Your task to perform on an android device: delete the emails in spam in the gmail app Image 0: 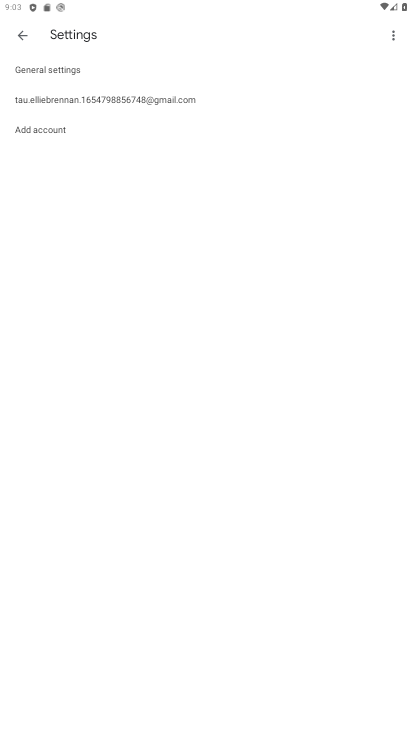
Step 0: drag from (334, 377) to (341, 139)
Your task to perform on an android device: delete the emails in spam in the gmail app Image 1: 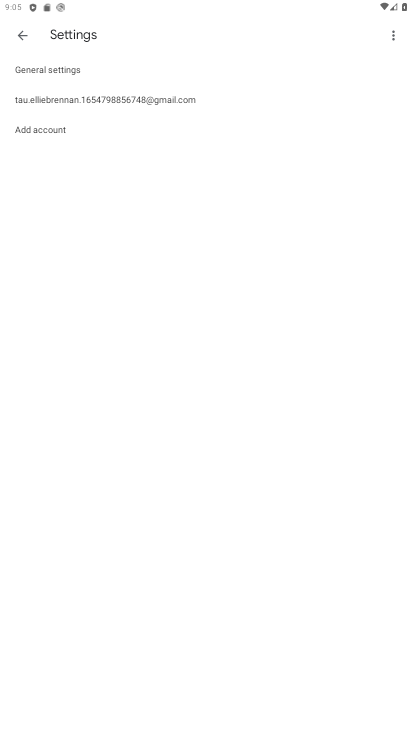
Step 1: drag from (339, 367) to (366, 177)
Your task to perform on an android device: delete the emails in spam in the gmail app Image 2: 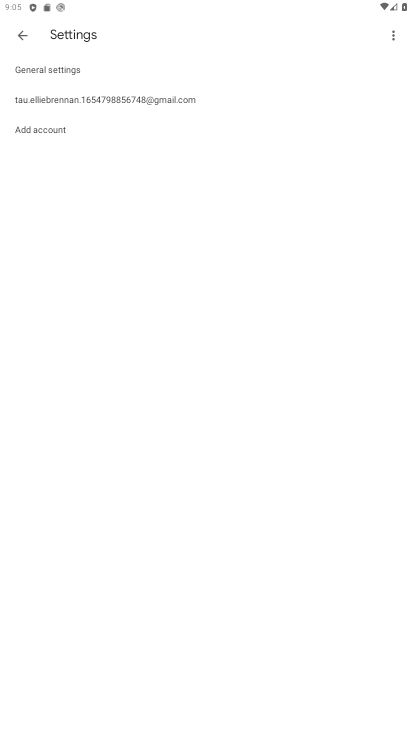
Step 2: click (77, 113)
Your task to perform on an android device: delete the emails in spam in the gmail app Image 3: 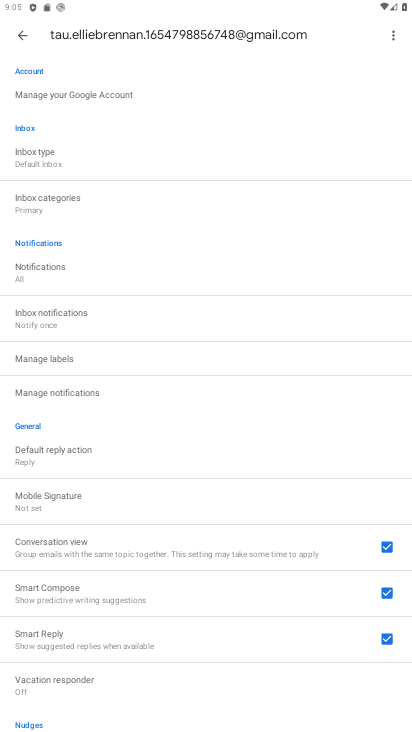
Step 3: click (13, 47)
Your task to perform on an android device: delete the emails in spam in the gmail app Image 4: 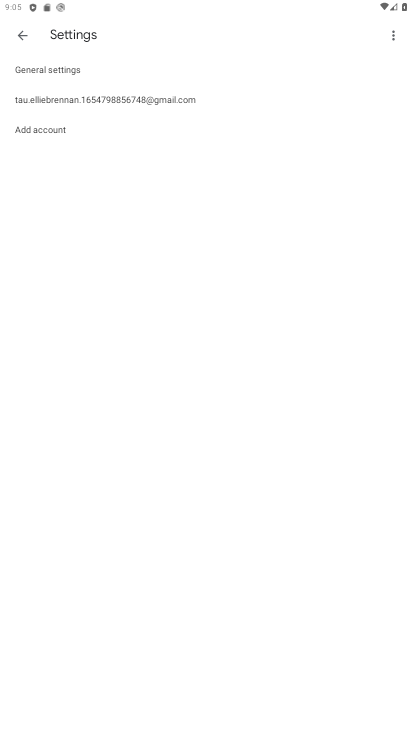
Step 4: drag from (133, 378) to (116, 165)
Your task to perform on an android device: delete the emails in spam in the gmail app Image 5: 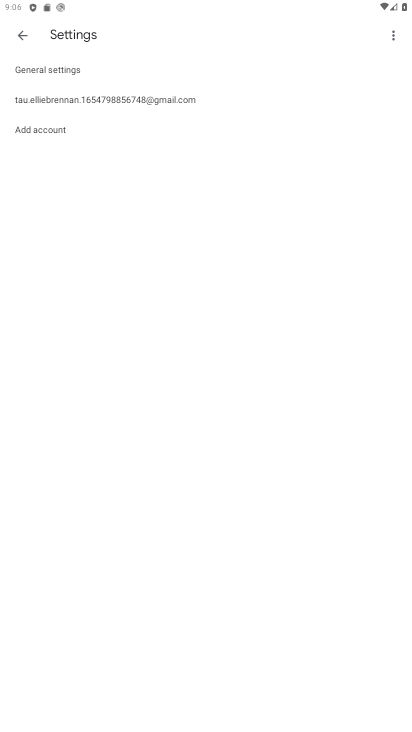
Step 5: drag from (12, 338) to (212, 124)
Your task to perform on an android device: delete the emails in spam in the gmail app Image 6: 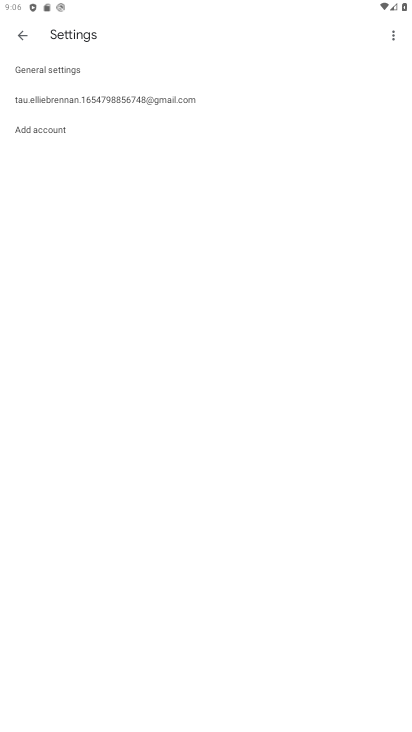
Step 6: drag from (302, 375) to (288, 197)
Your task to perform on an android device: delete the emails in spam in the gmail app Image 7: 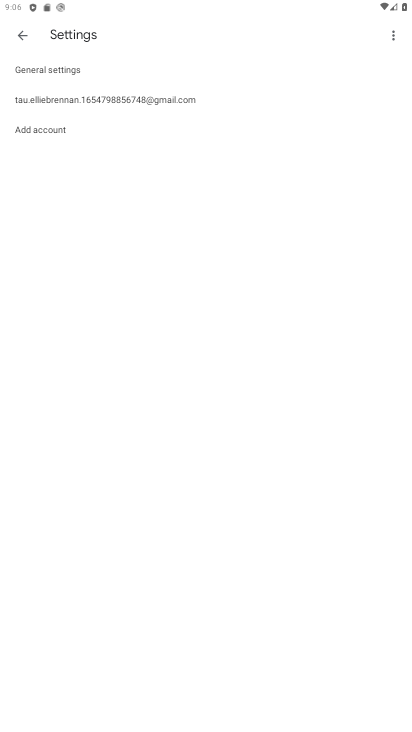
Step 7: press home button
Your task to perform on an android device: delete the emails in spam in the gmail app Image 8: 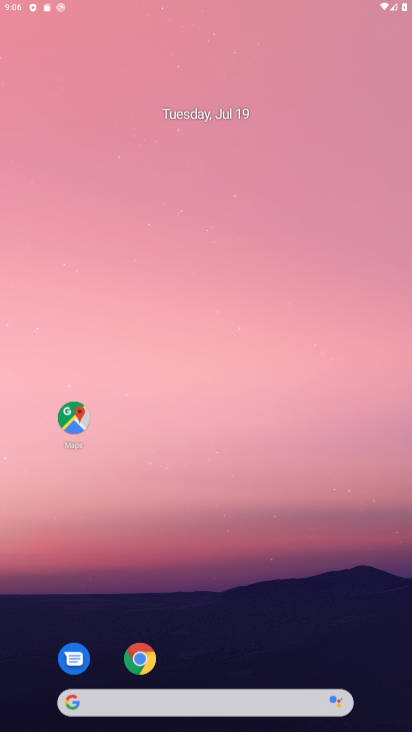
Step 8: drag from (242, 512) to (301, 134)
Your task to perform on an android device: delete the emails in spam in the gmail app Image 9: 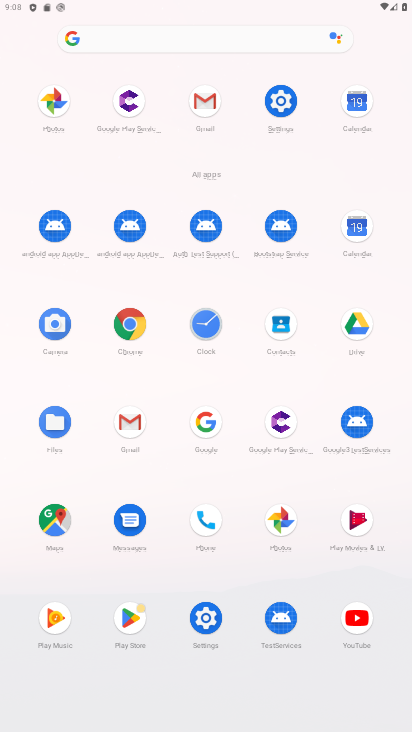
Step 9: drag from (271, 426) to (371, 313)
Your task to perform on an android device: delete the emails in spam in the gmail app Image 10: 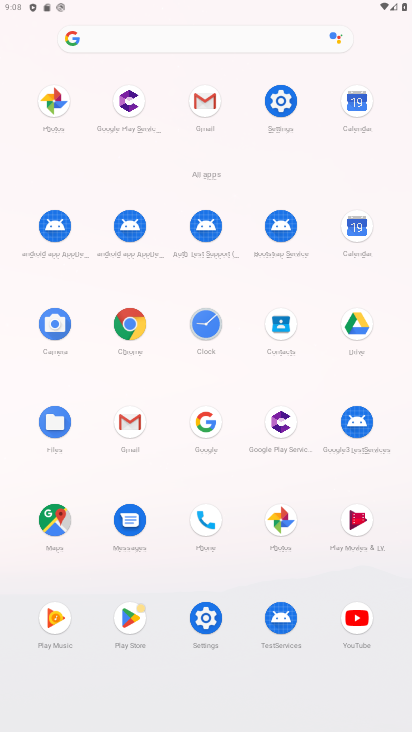
Step 10: click (131, 422)
Your task to perform on an android device: delete the emails in spam in the gmail app Image 11: 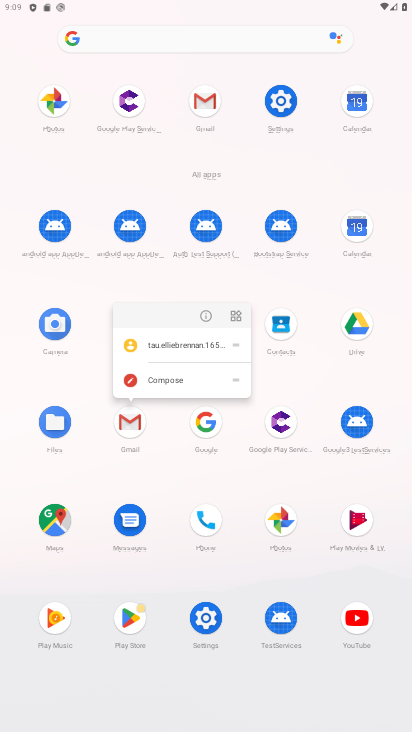
Step 11: click (204, 327)
Your task to perform on an android device: delete the emails in spam in the gmail app Image 12: 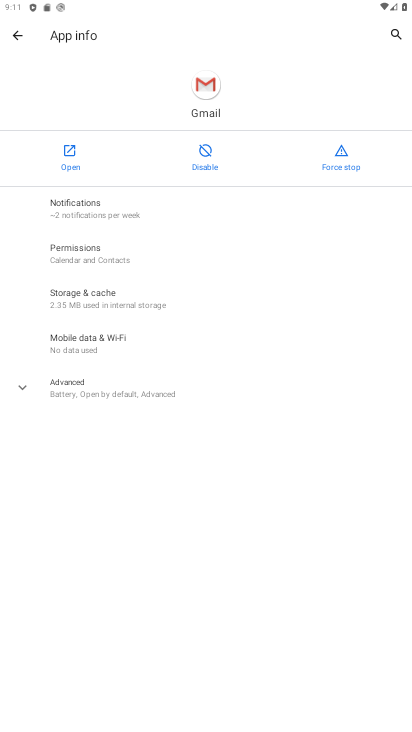
Step 12: click (66, 162)
Your task to perform on an android device: delete the emails in spam in the gmail app Image 13: 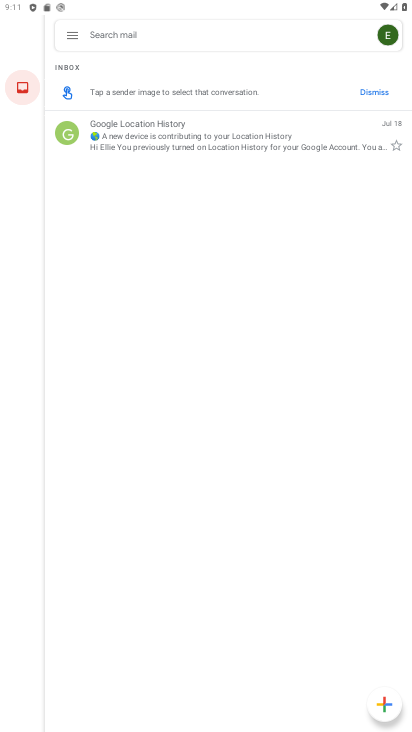
Step 13: drag from (290, 543) to (272, 348)
Your task to perform on an android device: delete the emails in spam in the gmail app Image 14: 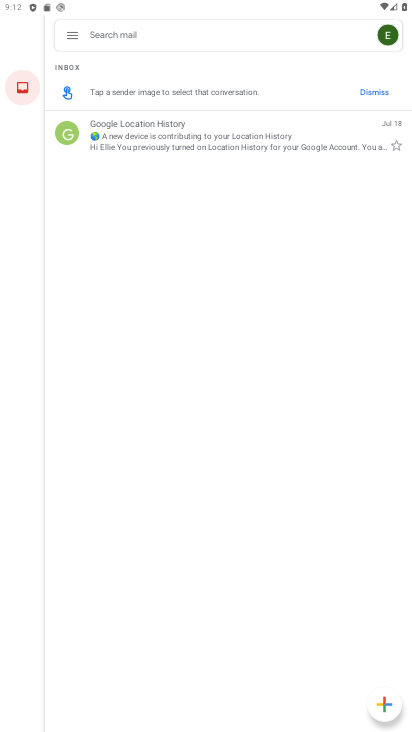
Step 14: click (279, 413)
Your task to perform on an android device: delete the emails in spam in the gmail app Image 15: 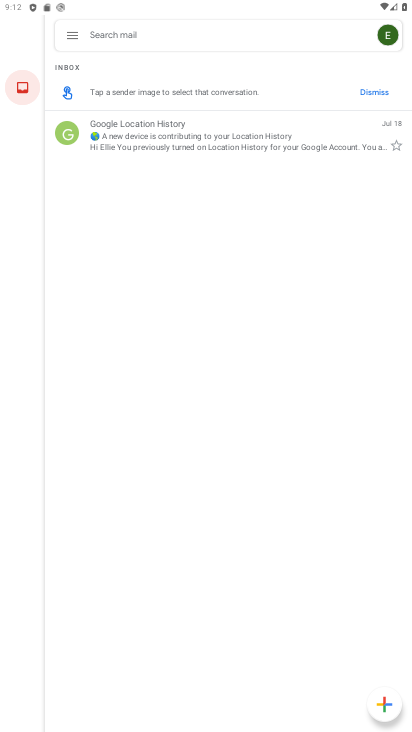
Step 15: press home button
Your task to perform on an android device: delete the emails in spam in the gmail app Image 16: 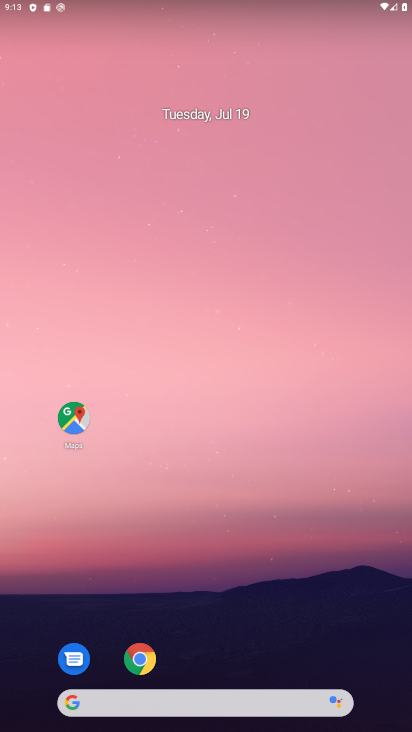
Step 16: drag from (230, 585) to (278, 435)
Your task to perform on an android device: delete the emails in spam in the gmail app Image 17: 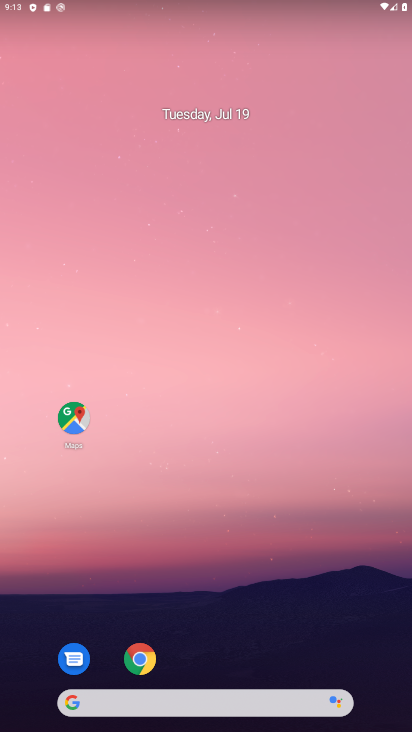
Step 17: drag from (297, 620) to (328, 409)
Your task to perform on an android device: delete the emails in spam in the gmail app Image 18: 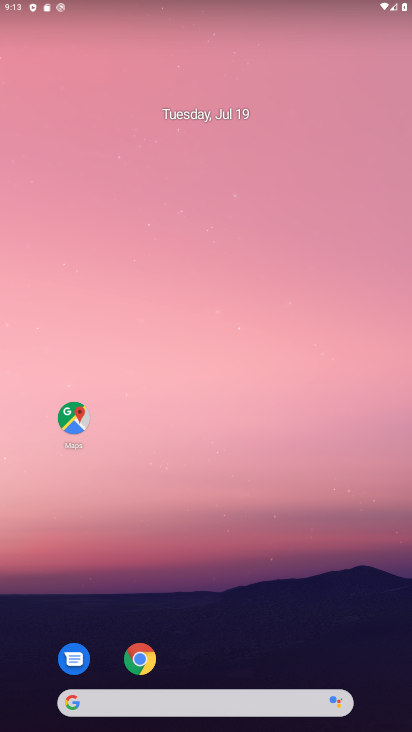
Step 18: drag from (211, 665) to (318, 376)
Your task to perform on an android device: delete the emails in spam in the gmail app Image 19: 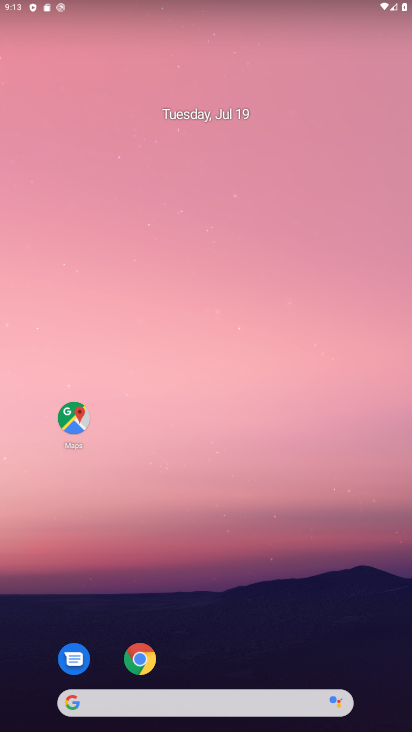
Step 19: drag from (215, 642) to (299, 6)
Your task to perform on an android device: delete the emails in spam in the gmail app Image 20: 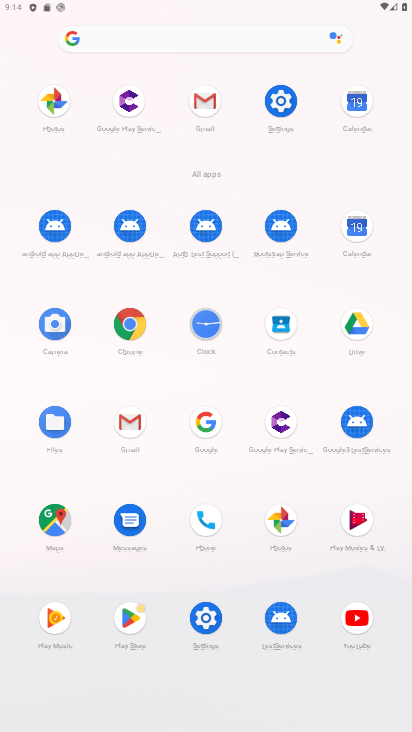
Step 20: click (150, 422)
Your task to perform on an android device: delete the emails in spam in the gmail app Image 21: 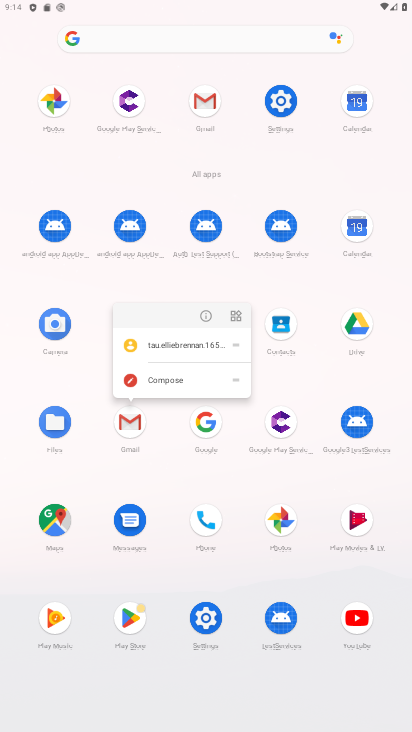
Step 21: click (197, 313)
Your task to perform on an android device: delete the emails in spam in the gmail app Image 22: 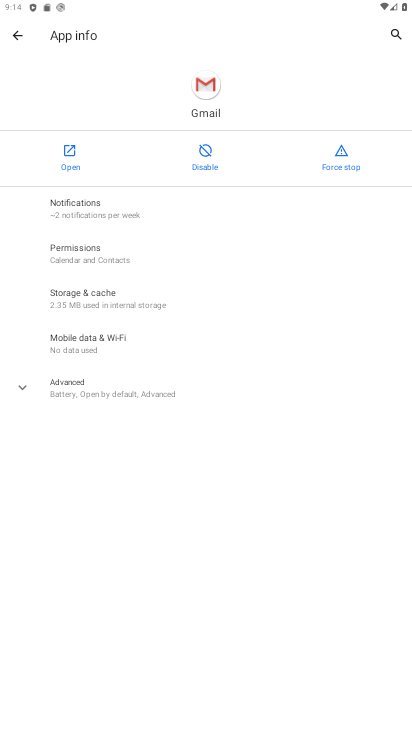
Step 22: click (102, 151)
Your task to perform on an android device: delete the emails in spam in the gmail app Image 23: 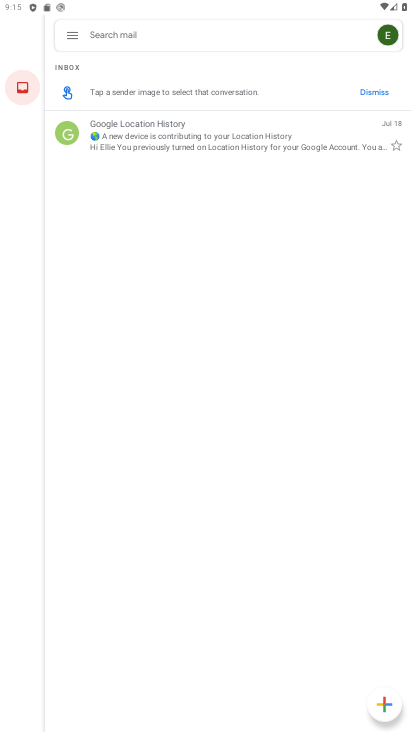
Step 23: drag from (248, 383) to (237, 257)
Your task to perform on an android device: delete the emails in spam in the gmail app Image 24: 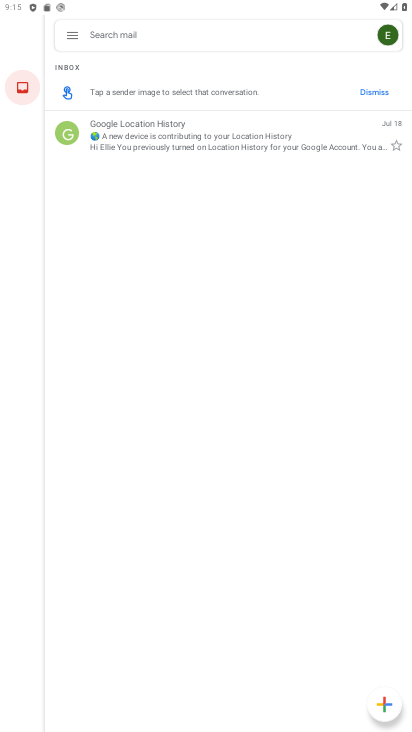
Step 24: click (239, 549)
Your task to perform on an android device: delete the emails in spam in the gmail app Image 25: 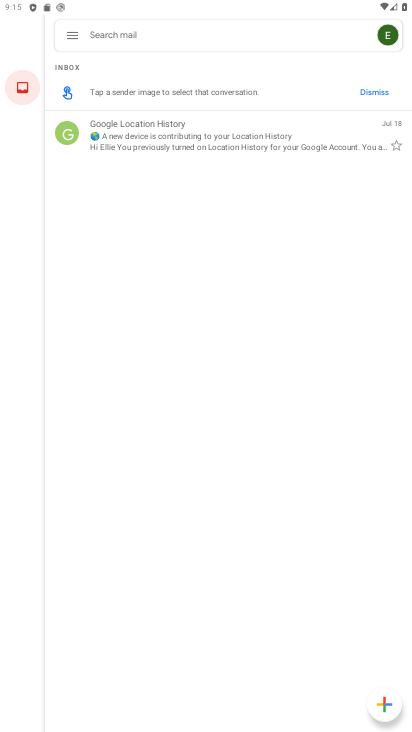
Step 25: click (90, 16)
Your task to perform on an android device: delete the emails in spam in the gmail app Image 26: 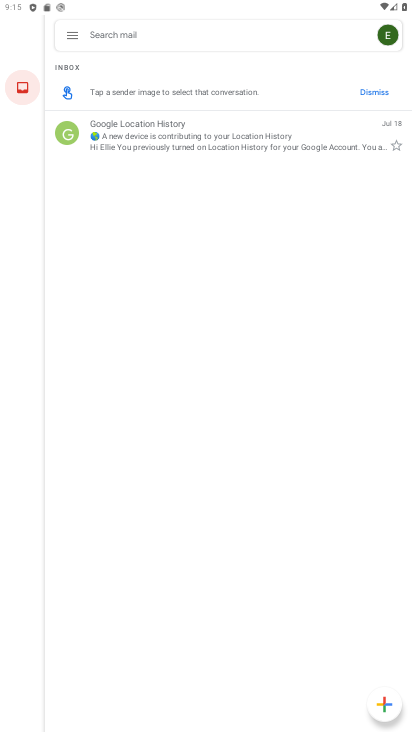
Step 26: click (64, 43)
Your task to perform on an android device: delete the emails in spam in the gmail app Image 27: 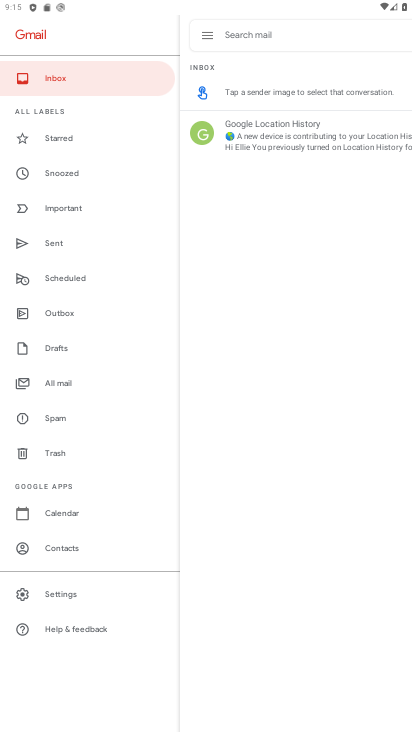
Step 27: click (46, 411)
Your task to perform on an android device: delete the emails in spam in the gmail app Image 28: 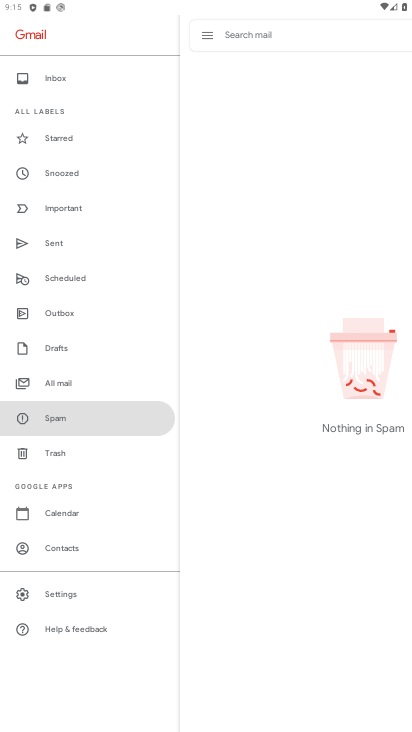
Step 28: task complete